Your task to perform on an android device: Is it going to rain today? Image 0: 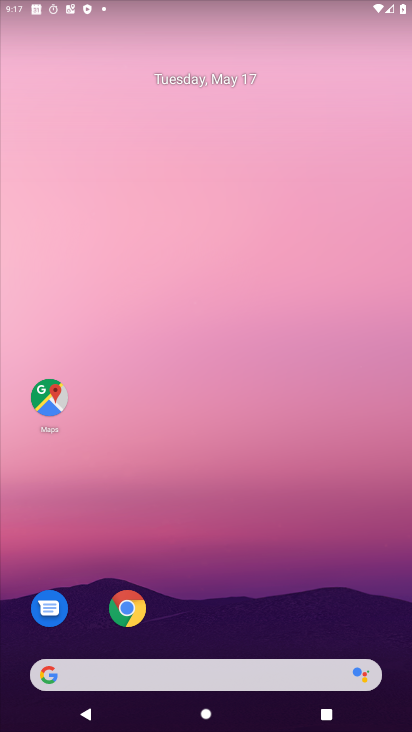
Step 0: drag from (283, 595) to (343, 190)
Your task to perform on an android device: Is it going to rain today? Image 1: 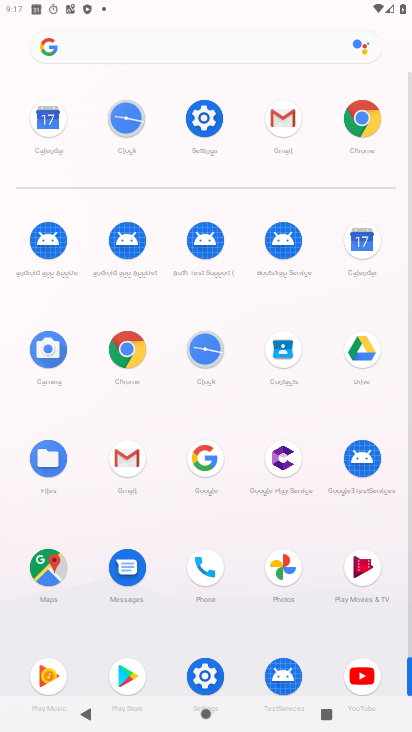
Step 1: click (135, 361)
Your task to perform on an android device: Is it going to rain today? Image 2: 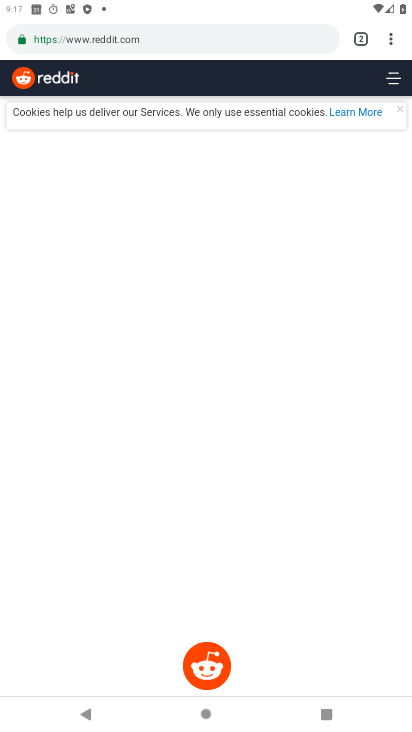
Step 2: click (167, 42)
Your task to perform on an android device: Is it going to rain today? Image 3: 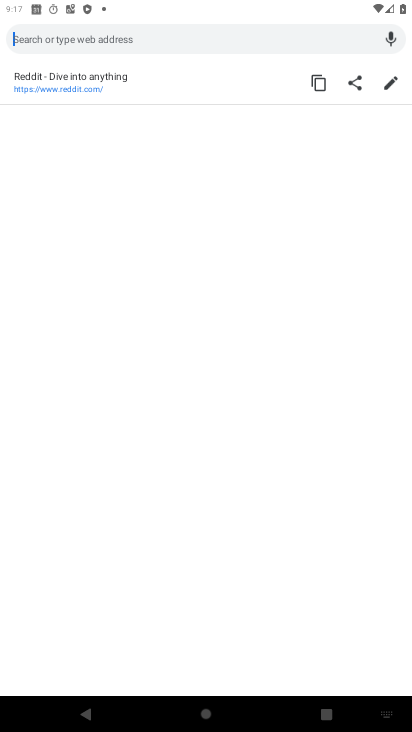
Step 3: type "is it going to rain today"
Your task to perform on an android device: Is it going to rain today? Image 4: 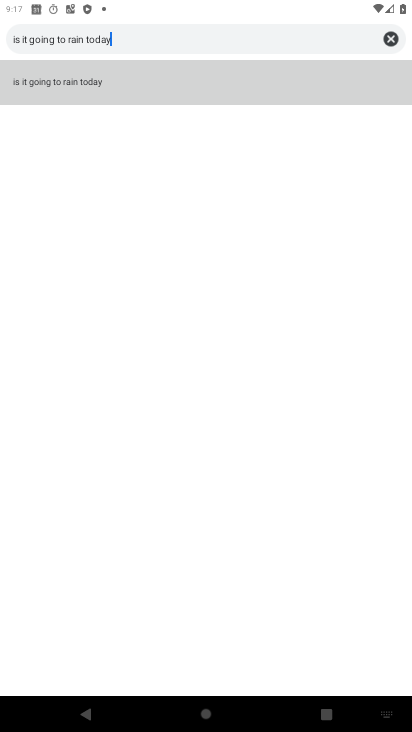
Step 4: click (38, 87)
Your task to perform on an android device: Is it going to rain today? Image 5: 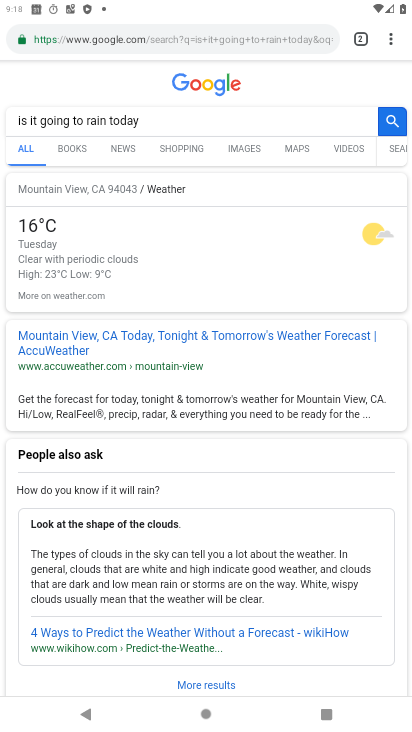
Step 5: task complete